Your task to perform on an android device: Go to privacy settings Image 0: 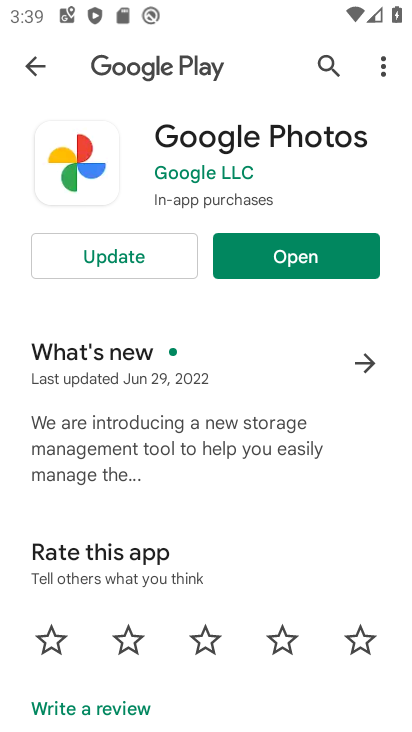
Step 0: press home button
Your task to perform on an android device: Go to privacy settings Image 1: 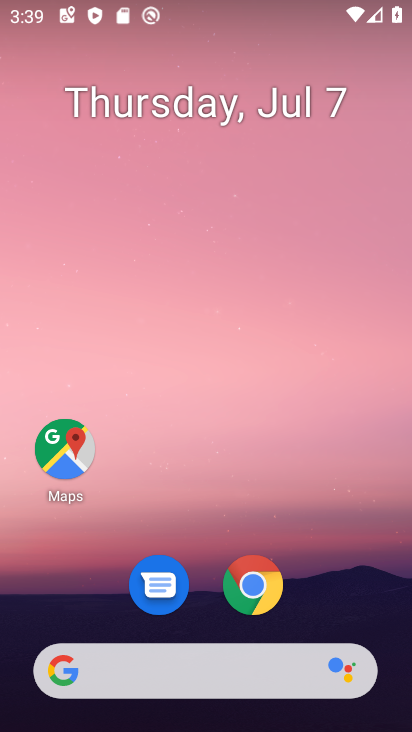
Step 1: drag from (275, 502) to (248, 1)
Your task to perform on an android device: Go to privacy settings Image 2: 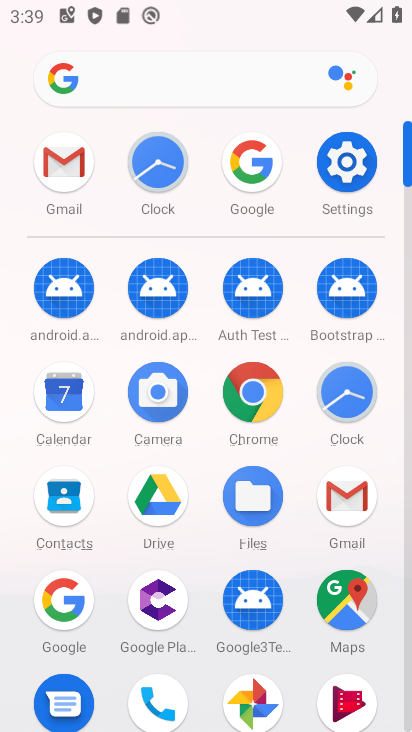
Step 2: click (341, 164)
Your task to perform on an android device: Go to privacy settings Image 3: 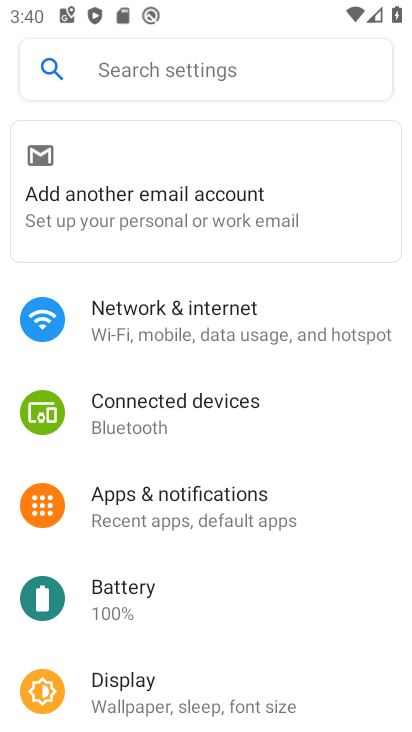
Step 3: drag from (204, 576) to (218, 213)
Your task to perform on an android device: Go to privacy settings Image 4: 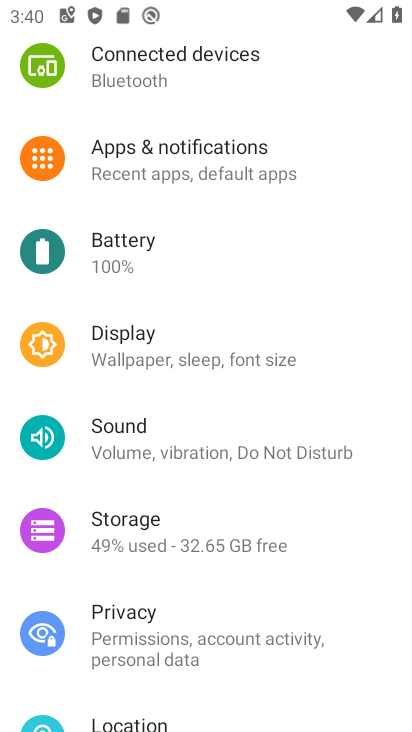
Step 4: click (192, 628)
Your task to perform on an android device: Go to privacy settings Image 5: 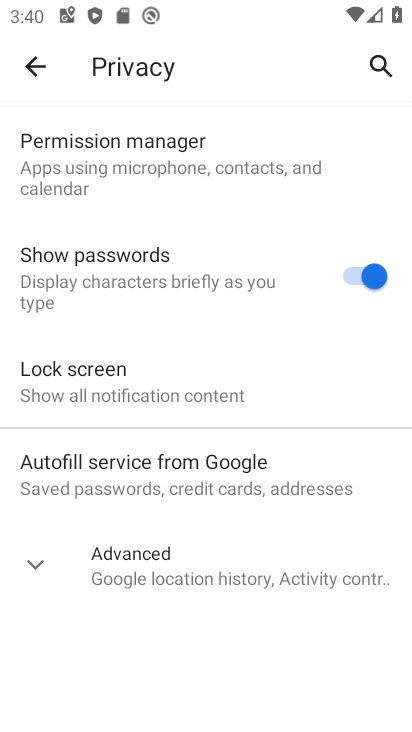
Step 5: task complete